Your task to perform on an android device: View the shopping cart on bestbuy. Add "acer predator" to the cart on bestbuy Image 0: 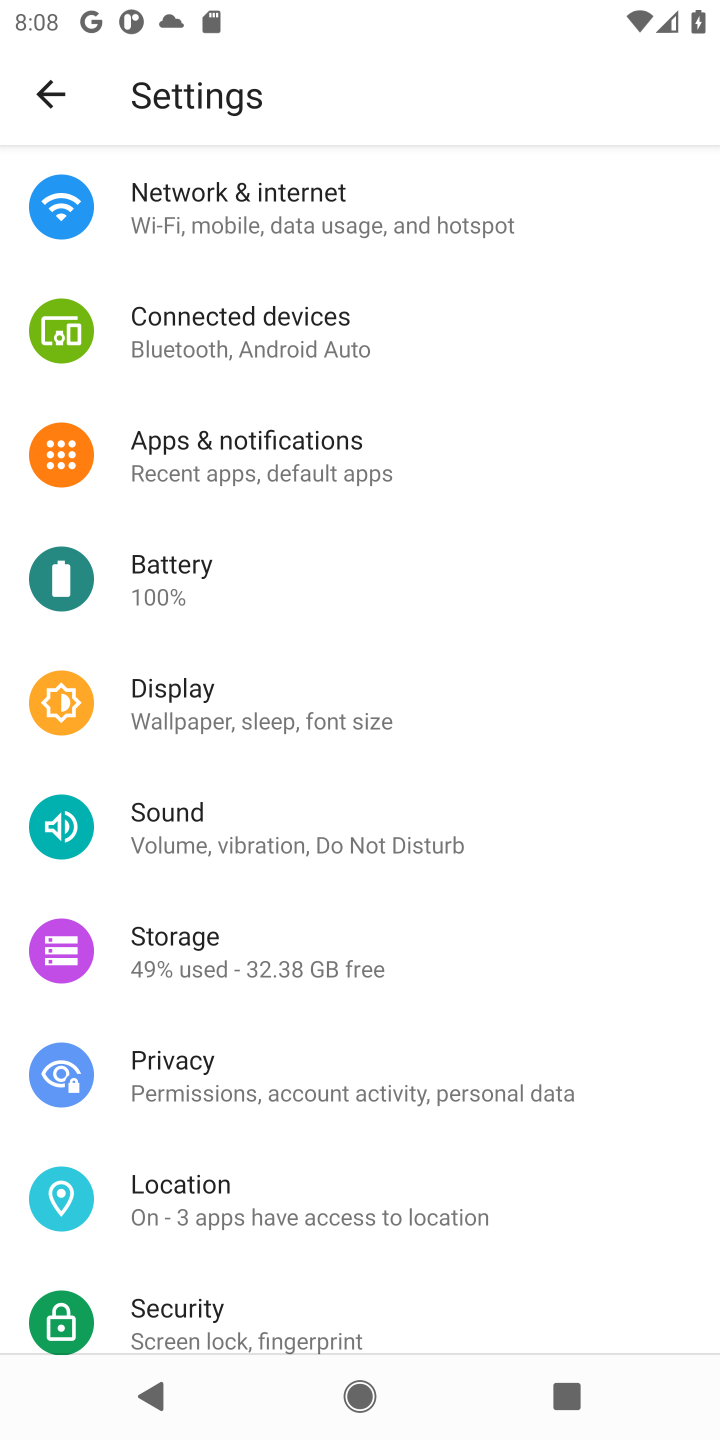
Step 0: press home button
Your task to perform on an android device: View the shopping cart on bestbuy. Add "acer predator" to the cart on bestbuy Image 1: 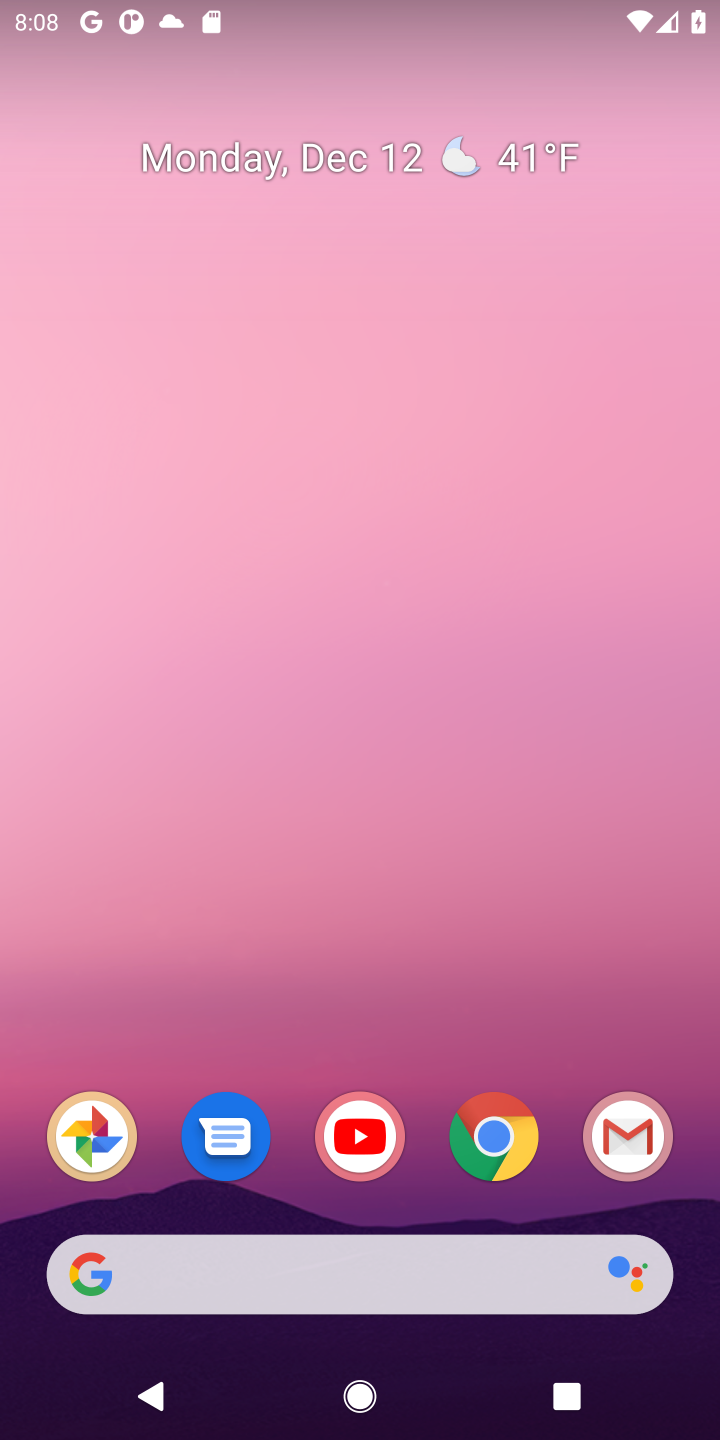
Step 1: click (498, 1145)
Your task to perform on an android device: View the shopping cart on bestbuy. Add "acer predator" to the cart on bestbuy Image 2: 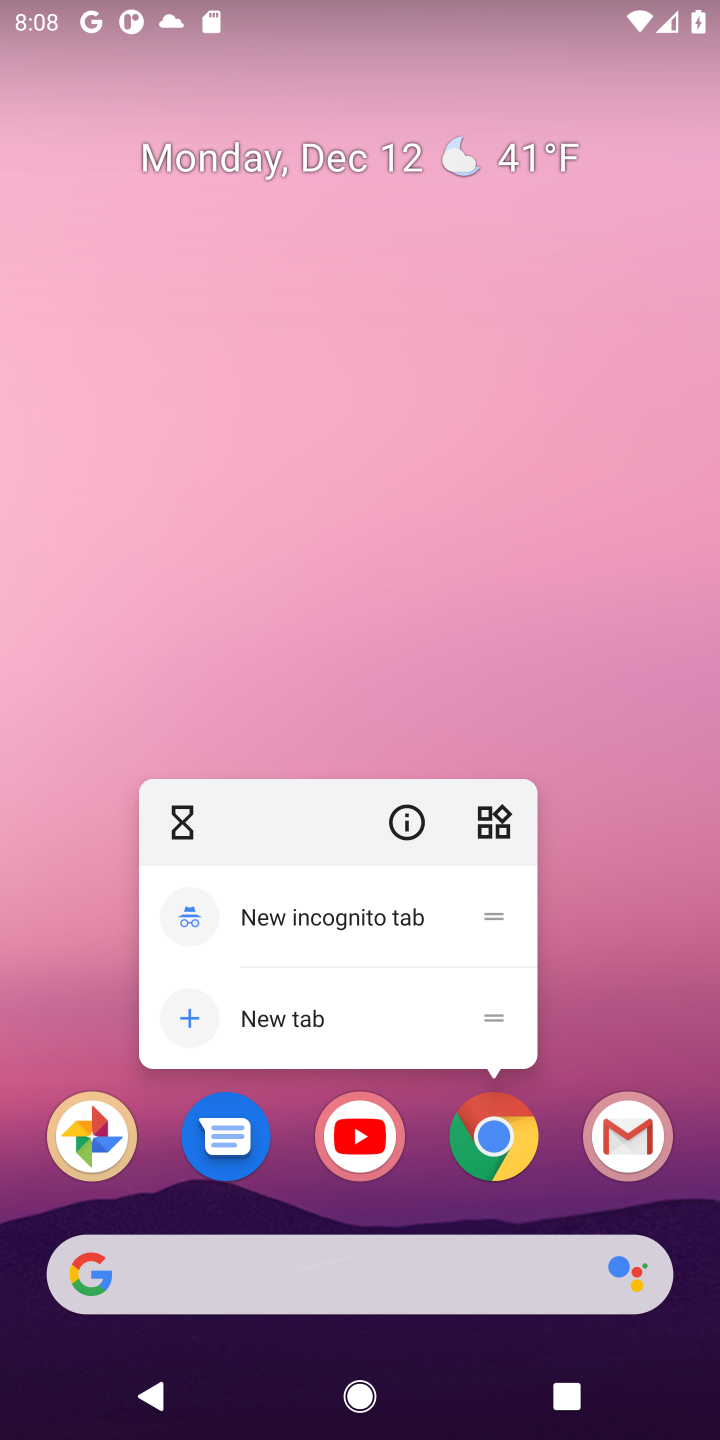
Step 2: click (498, 1145)
Your task to perform on an android device: View the shopping cart on bestbuy. Add "acer predator" to the cart on bestbuy Image 3: 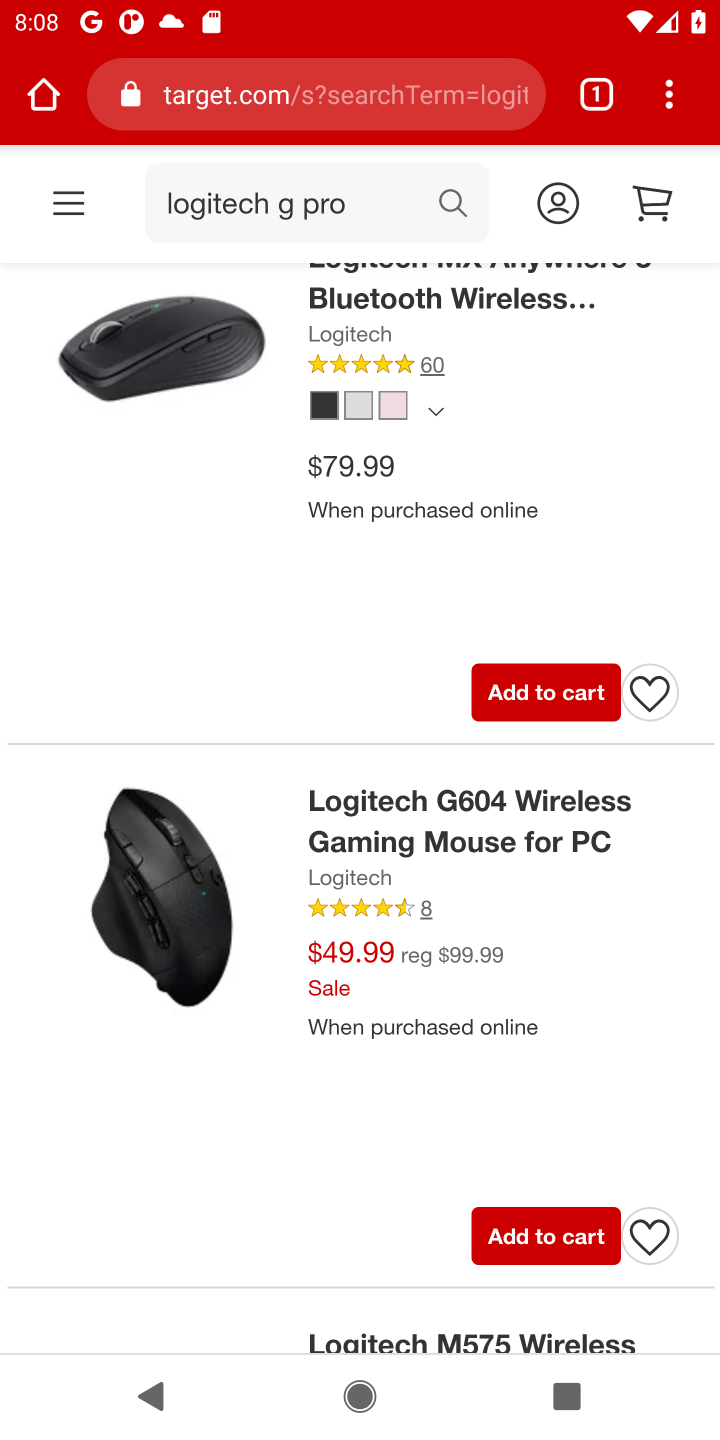
Step 3: click (313, 105)
Your task to perform on an android device: View the shopping cart on bestbuy. Add "acer predator" to the cart on bestbuy Image 4: 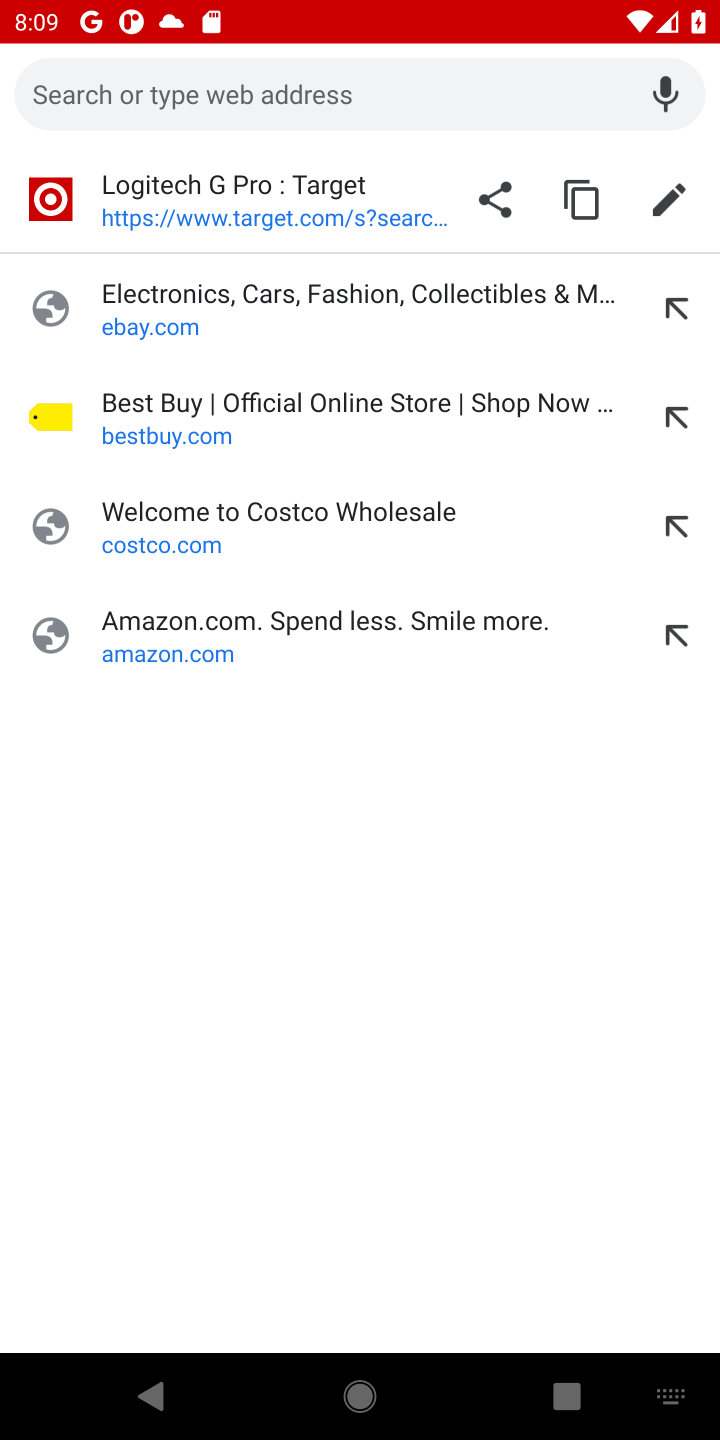
Step 4: click (178, 419)
Your task to perform on an android device: View the shopping cart on bestbuy. Add "acer predator" to the cart on bestbuy Image 5: 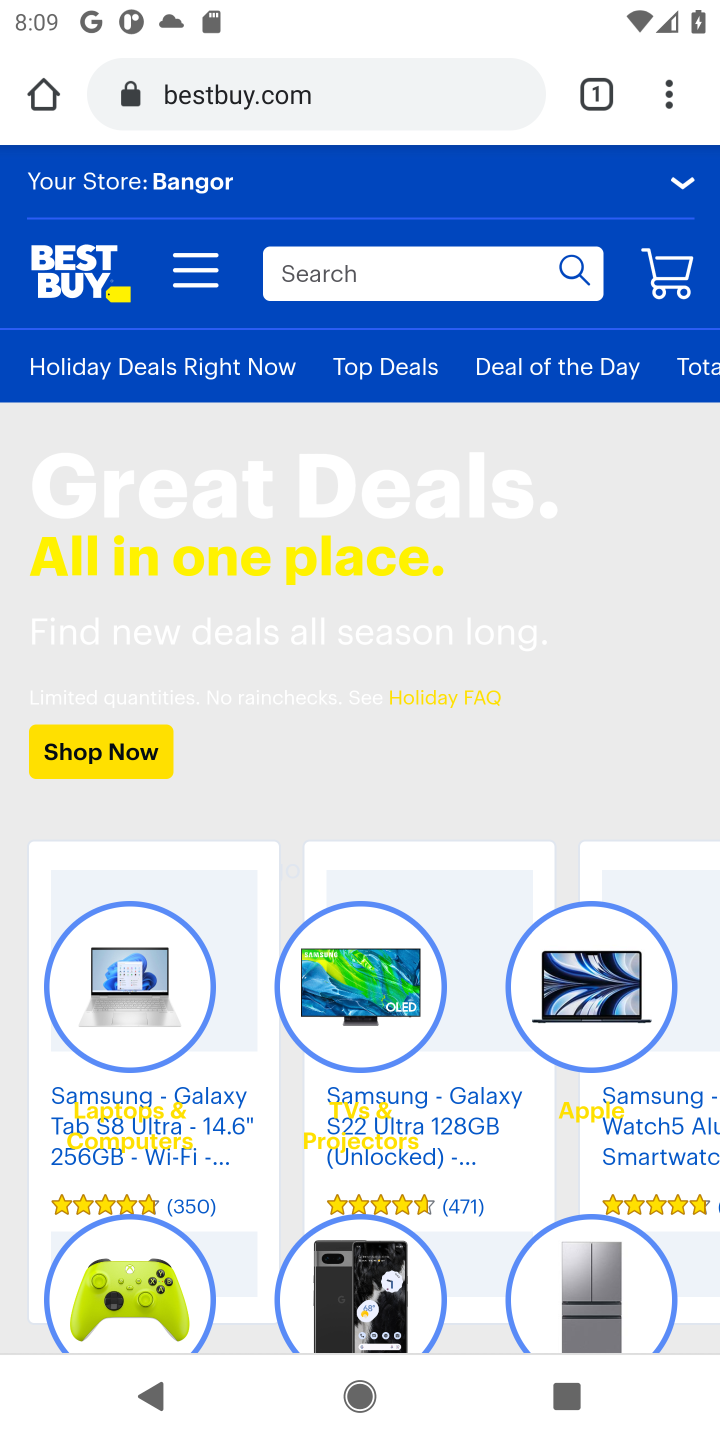
Step 5: click (661, 284)
Your task to perform on an android device: View the shopping cart on bestbuy. Add "acer predator" to the cart on bestbuy Image 6: 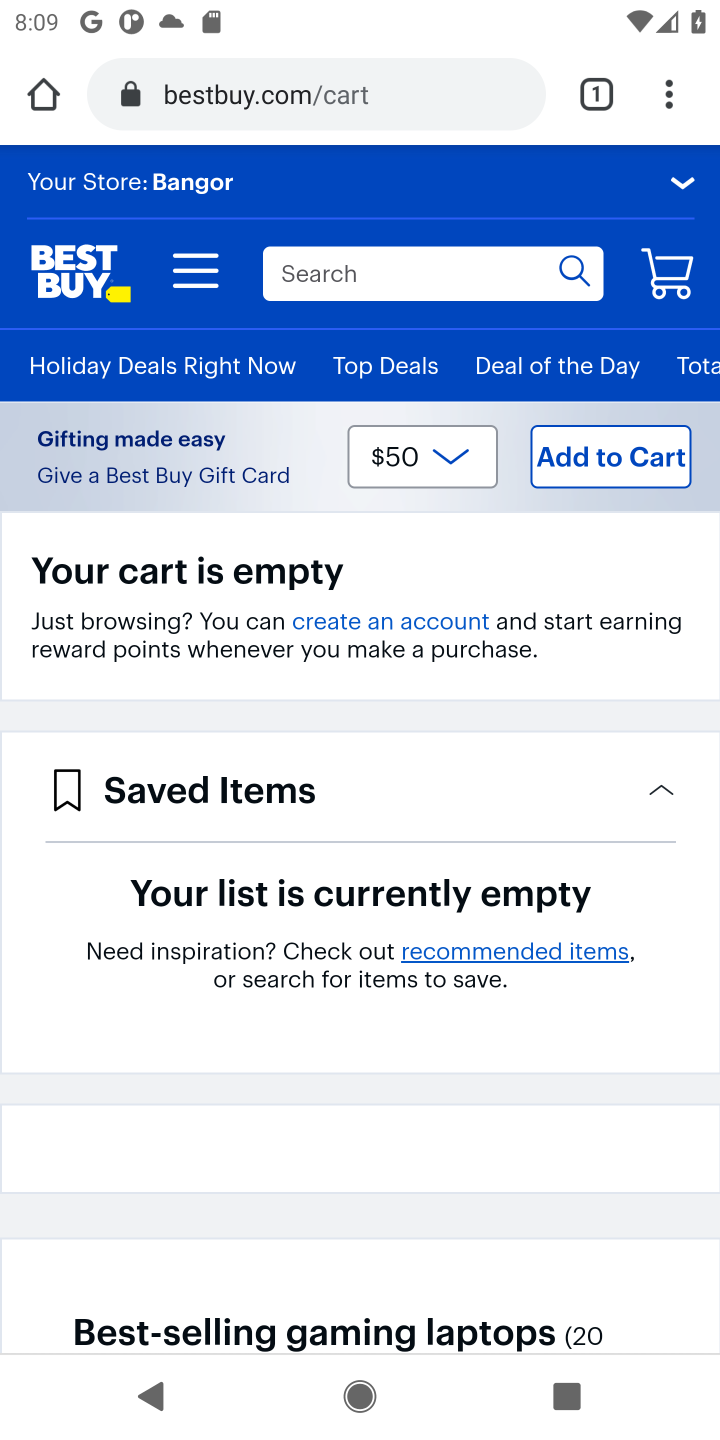
Step 6: click (400, 266)
Your task to perform on an android device: View the shopping cart on bestbuy. Add "acer predator" to the cart on bestbuy Image 7: 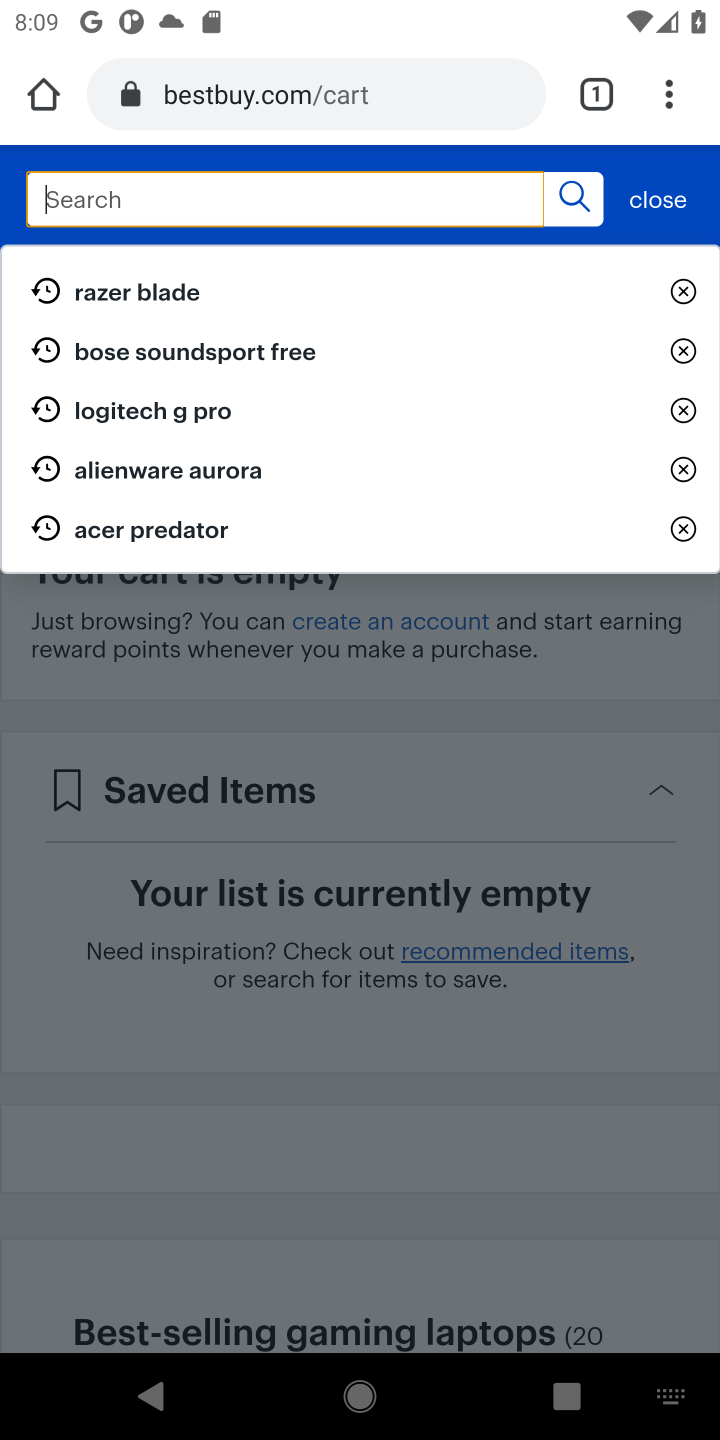
Step 7: type "acer predator"
Your task to perform on an android device: View the shopping cart on bestbuy. Add "acer predator" to the cart on bestbuy Image 8: 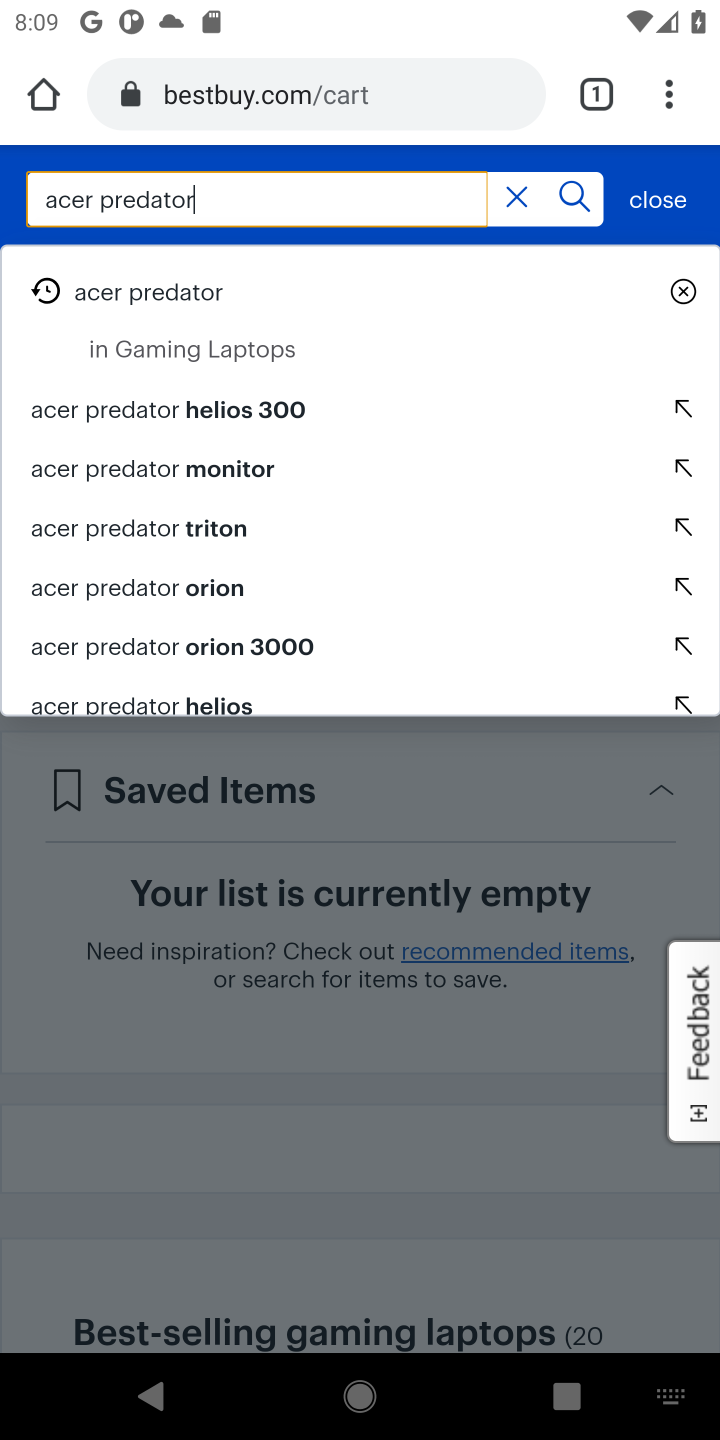
Step 8: click (185, 290)
Your task to perform on an android device: View the shopping cart on bestbuy. Add "acer predator" to the cart on bestbuy Image 9: 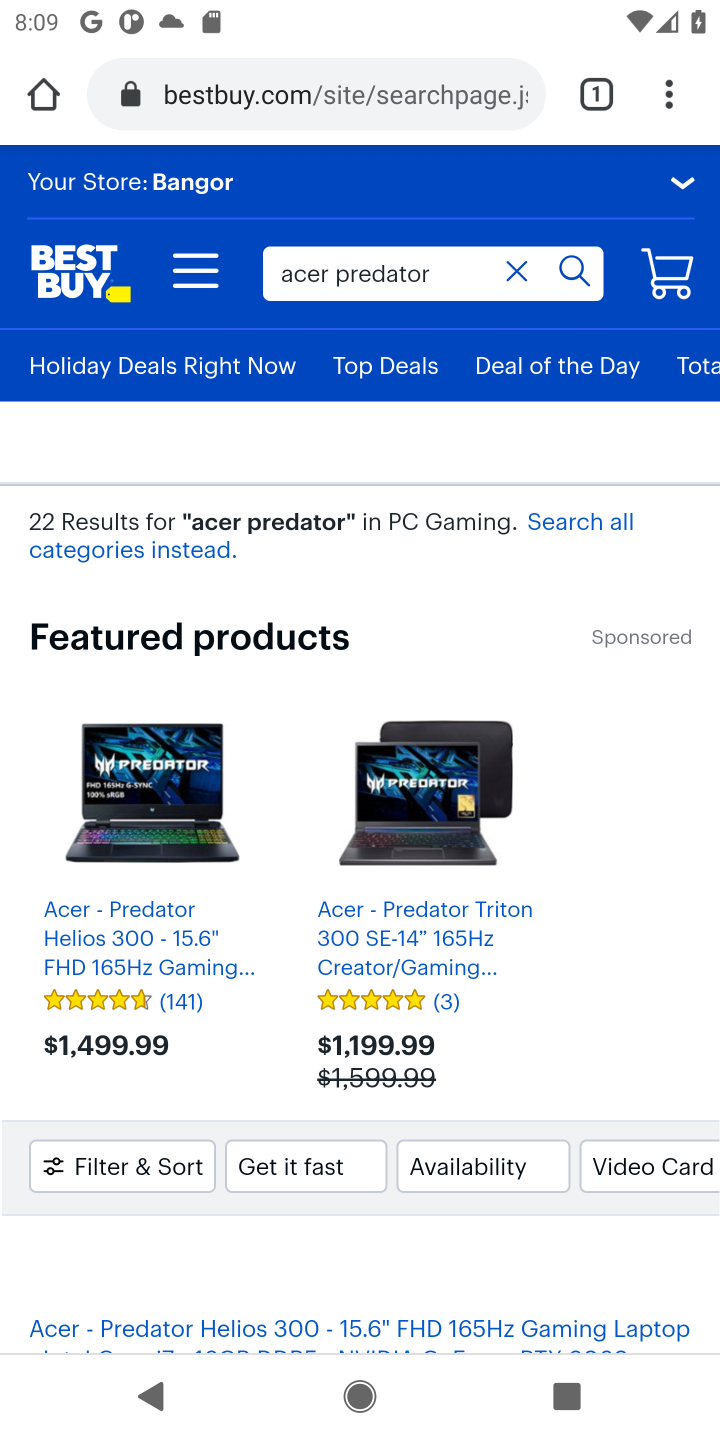
Step 9: drag from (356, 973) to (402, 332)
Your task to perform on an android device: View the shopping cart on bestbuy. Add "acer predator" to the cart on bestbuy Image 10: 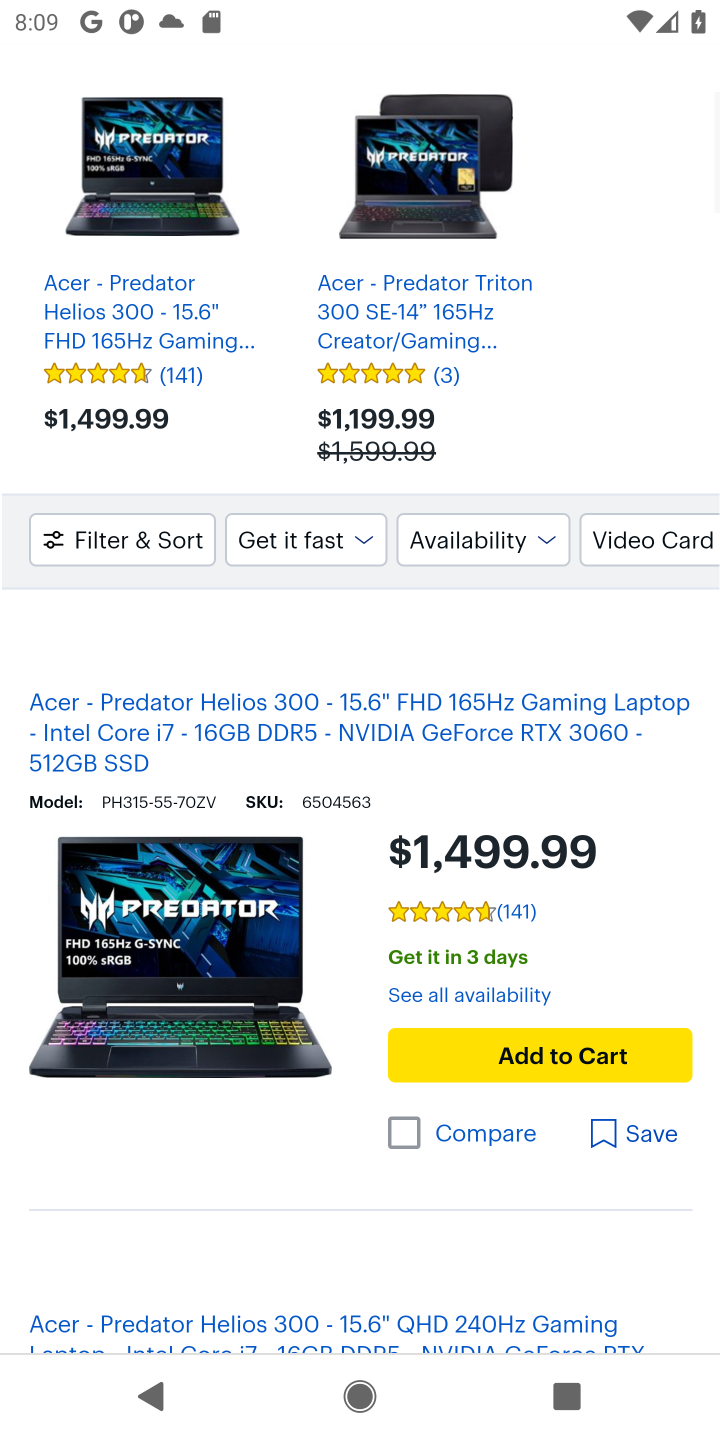
Step 10: drag from (354, 1147) to (340, 692)
Your task to perform on an android device: View the shopping cart on bestbuy. Add "acer predator" to the cart on bestbuy Image 11: 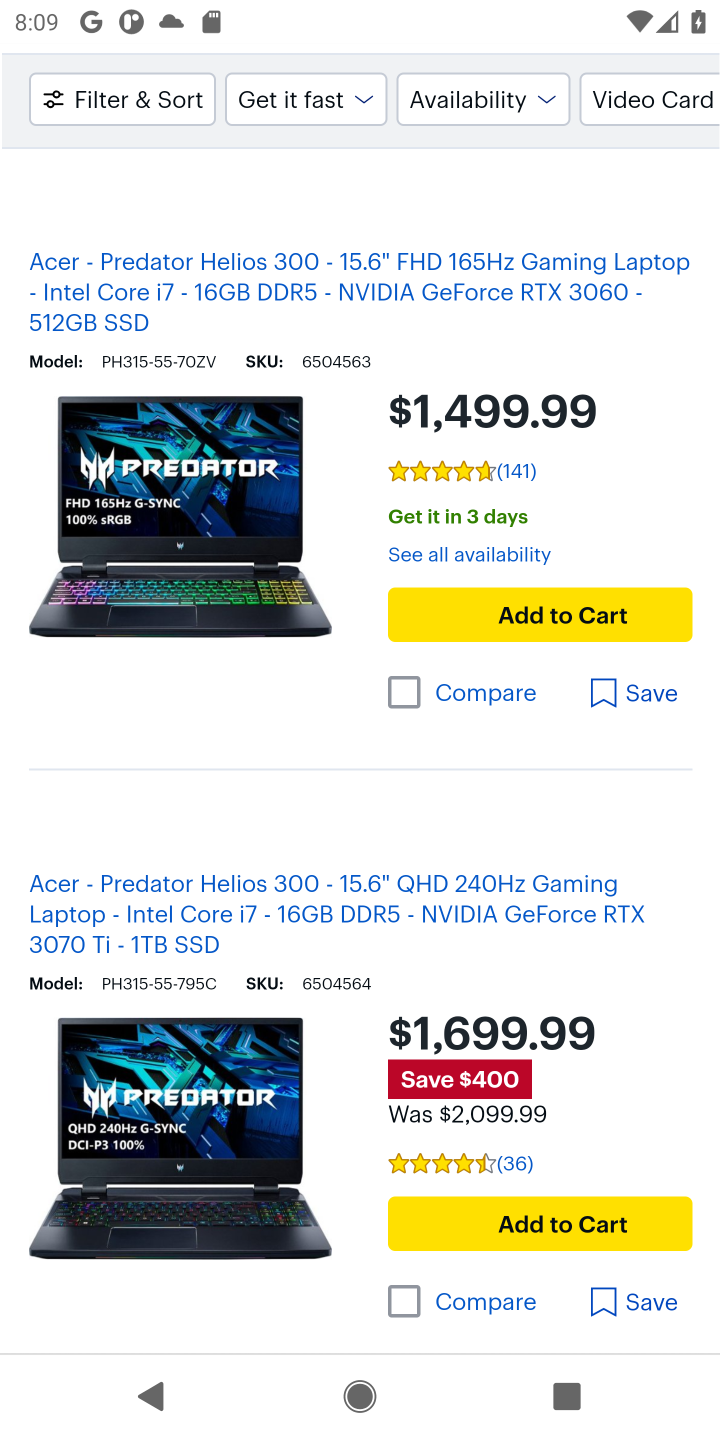
Step 11: click (531, 622)
Your task to perform on an android device: View the shopping cart on bestbuy. Add "acer predator" to the cart on bestbuy Image 12: 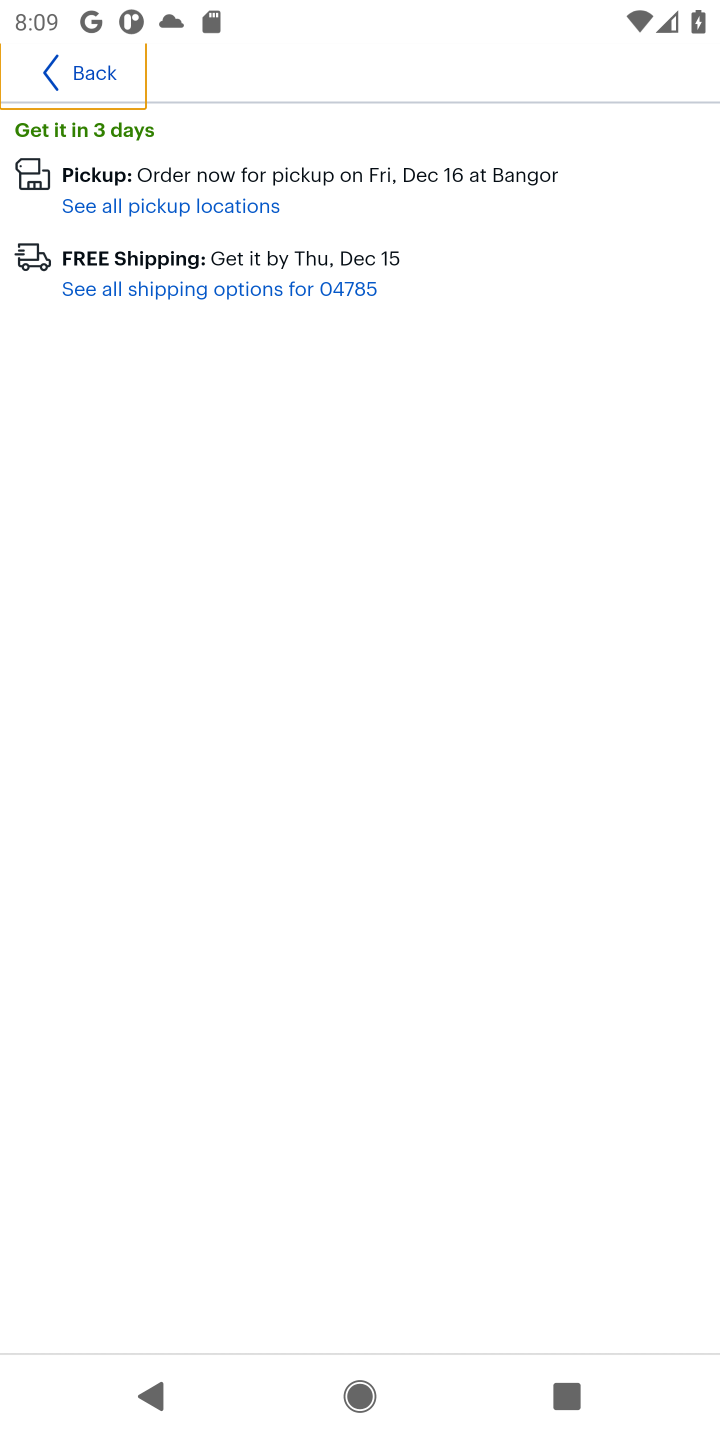
Step 12: click (55, 78)
Your task to perform on an android device: View the shopping cart on bestbuy. Add "acer predator" to the cart on bestbuy Image 13: 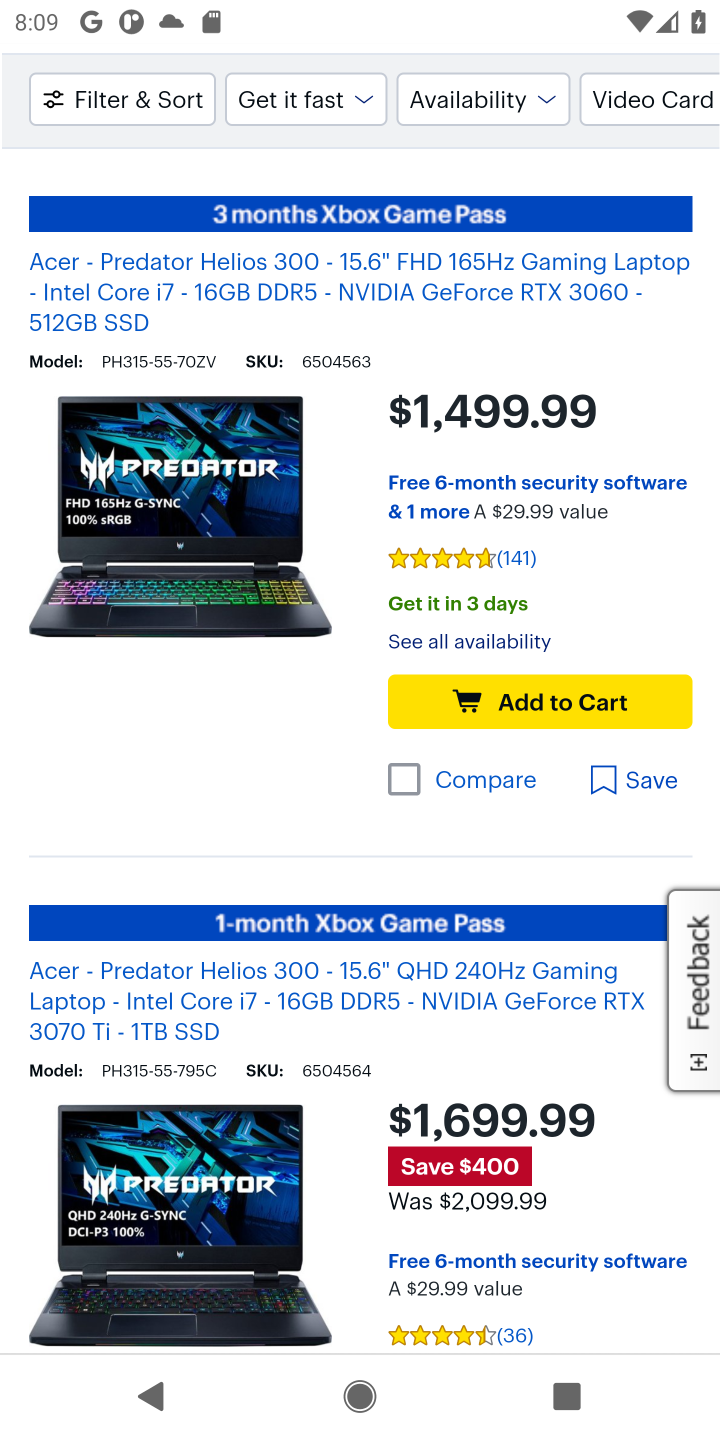
Step 13: click (500, 704)
Your task to perform on an android device: View the shopping cart on bestbuy. Add "acer predator" to the cart on bestbuy Image 14: 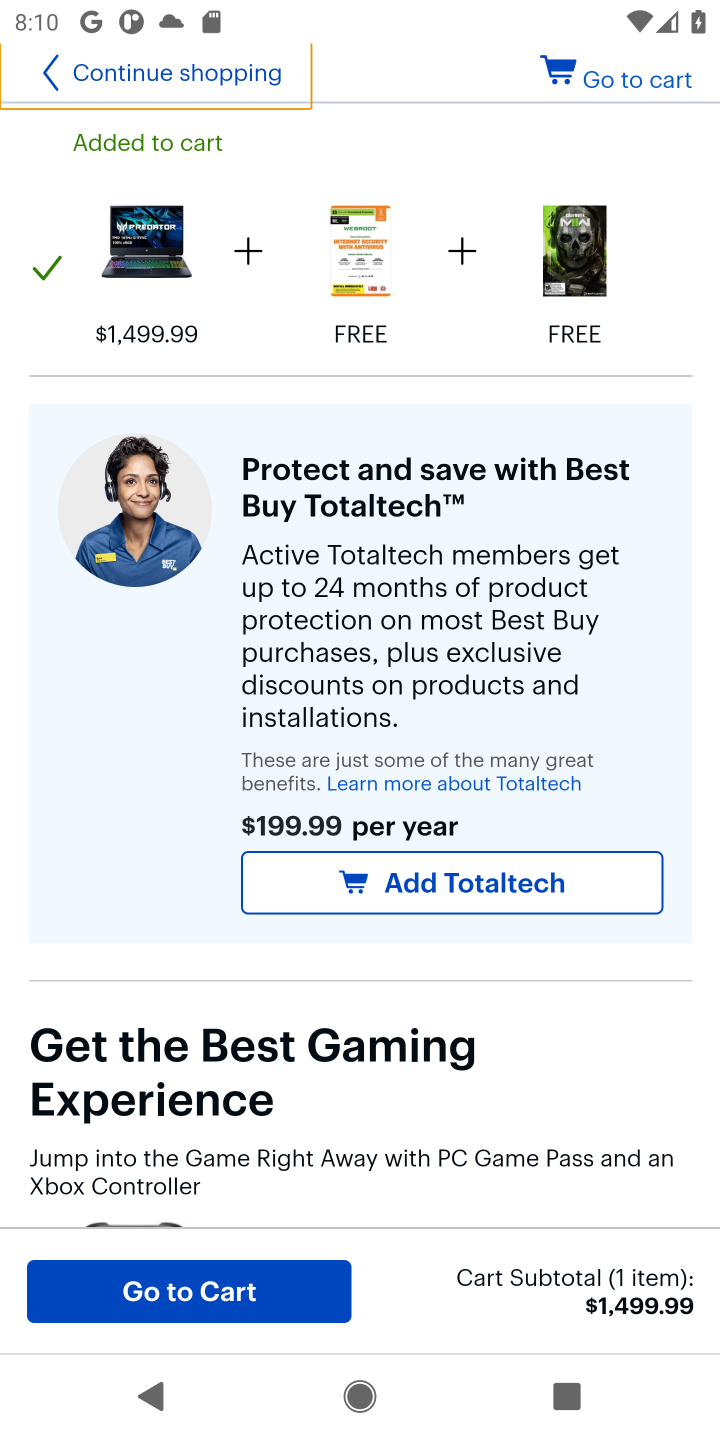
Step 14: task complete